Your task to perform on an android device: Open the stopwatch Image 0: 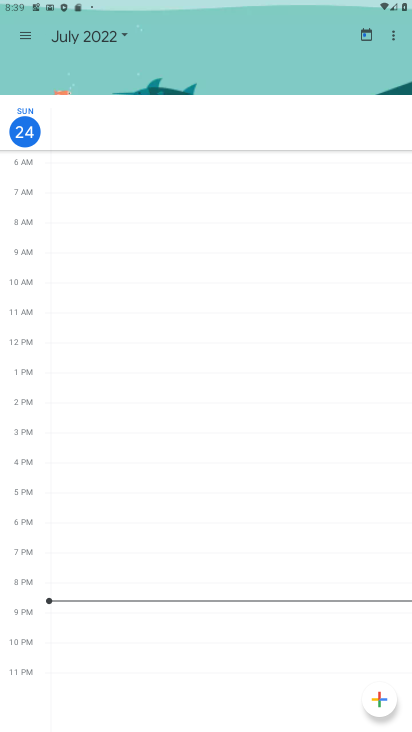
Step 0: press home button
Your task to perform on an android device: Open the stopwatch Image 1: 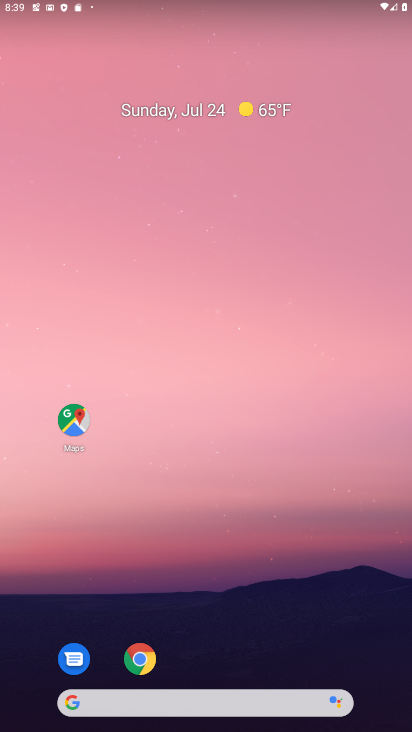
Step 1: drag from (257, 672) to (291, 3)
Your task to perform on an android device: Open the stopwatch Image 2: 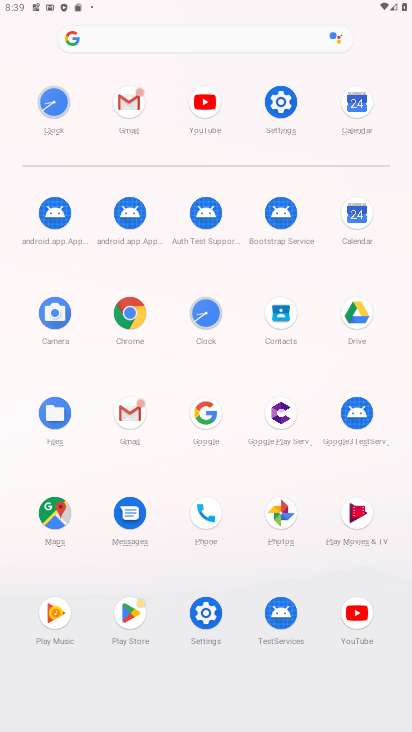
Step 2: click (205, 321)
Your task to perform on an android device: Open the stopwatch Image 3: 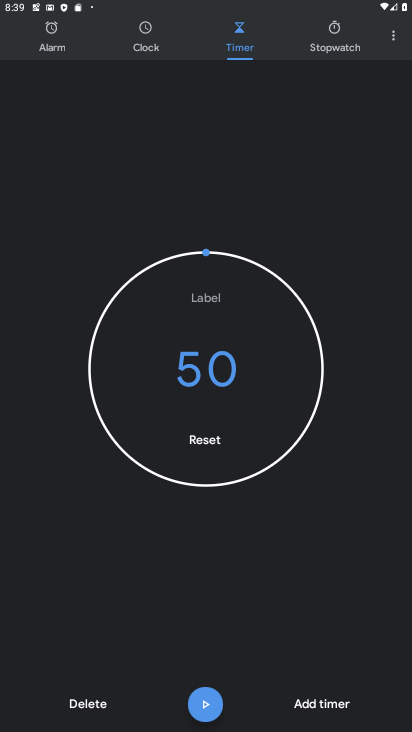
Step 3: click (330, 41)
Your task to perform on an android device: Open the stopwatch Image 4: 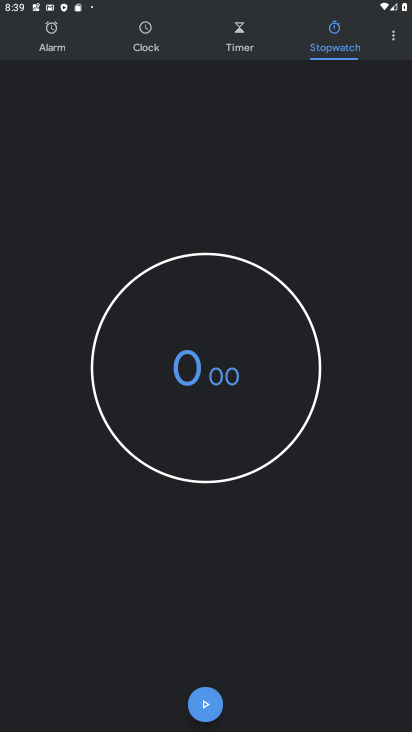
Step 4: task complete